Your task to perform on an android device: Open Yahoo.com Image 0: 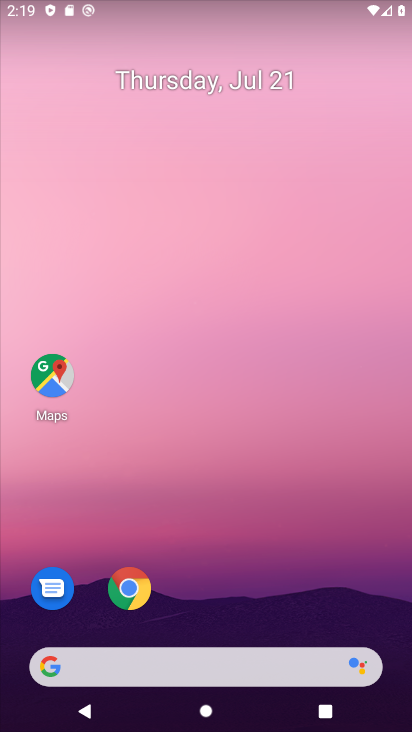
Step 0: click (133, 593)
Your task to perform on an android device: Open Yahoo.com Image 1: 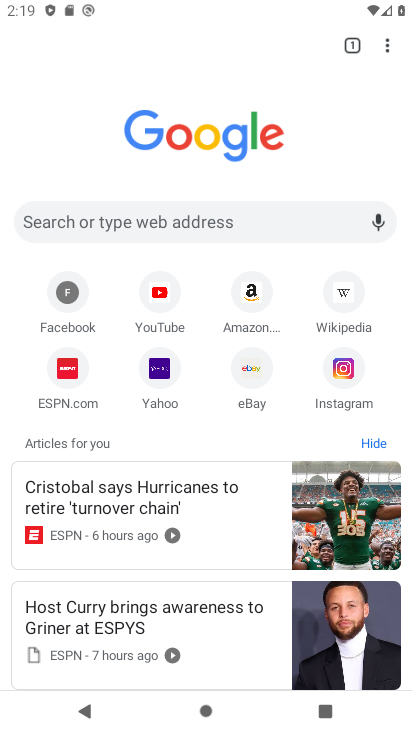
Step 1: click (163, 369)
Your task to perform on an android device: Open Yahoo.com Image 2: 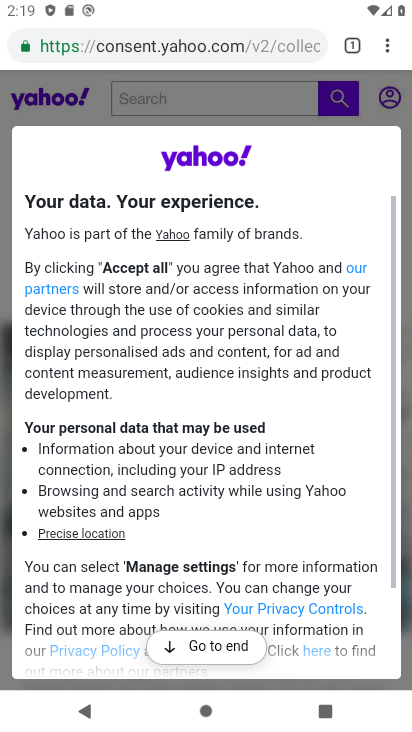
Step 2: task complete